Your task to perform on an android device: View the shopping cart on walmart.com. Image 0: 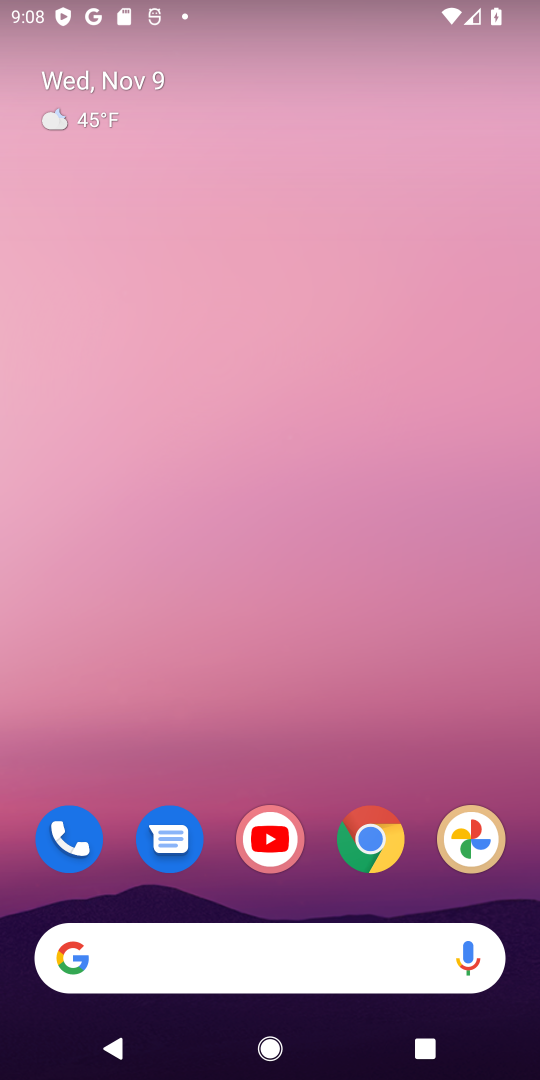
Step 0: drag from (141, 796) to (59, 292)
Your task to perform on an android device: View the shopping cart on walmart.com. Image 1: 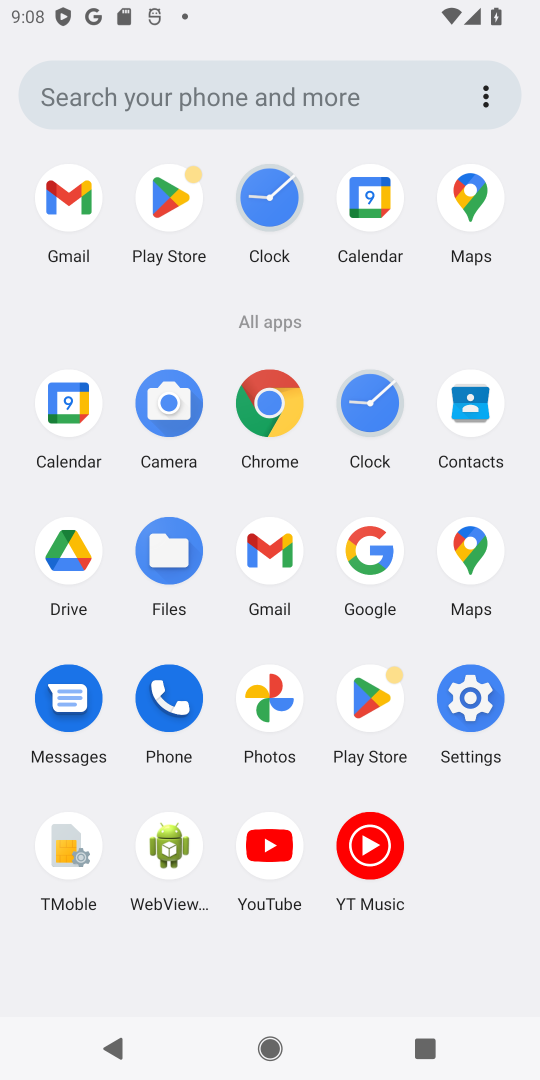
Step 1: click (268, 415)
Your task to perform on an android device: View the shopping cart on walmart.com. Image 2: 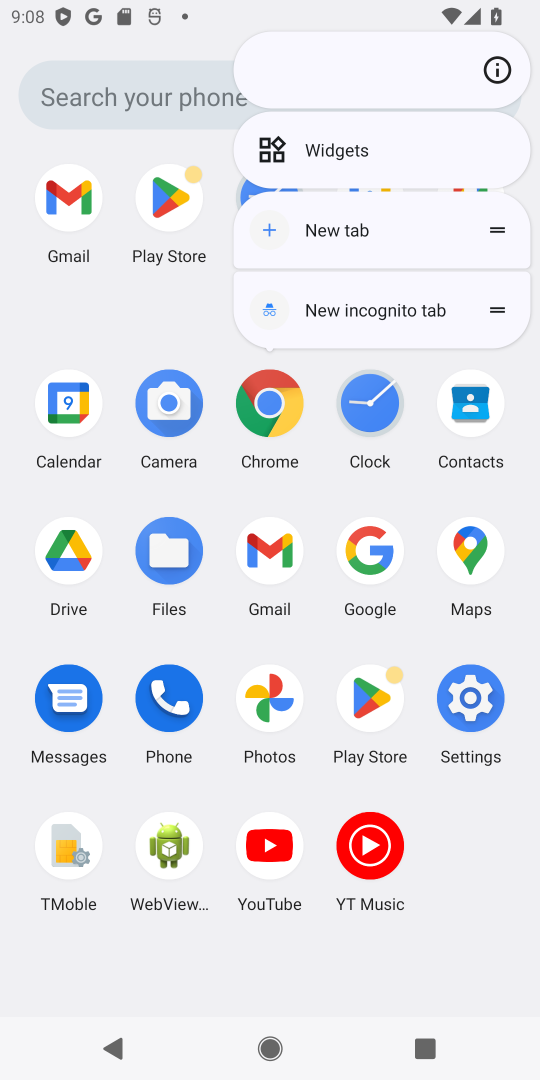
Step 2: click (268, 411)
Your task to perform on an android device: View the shopping cart on walmart.com. Image 3: 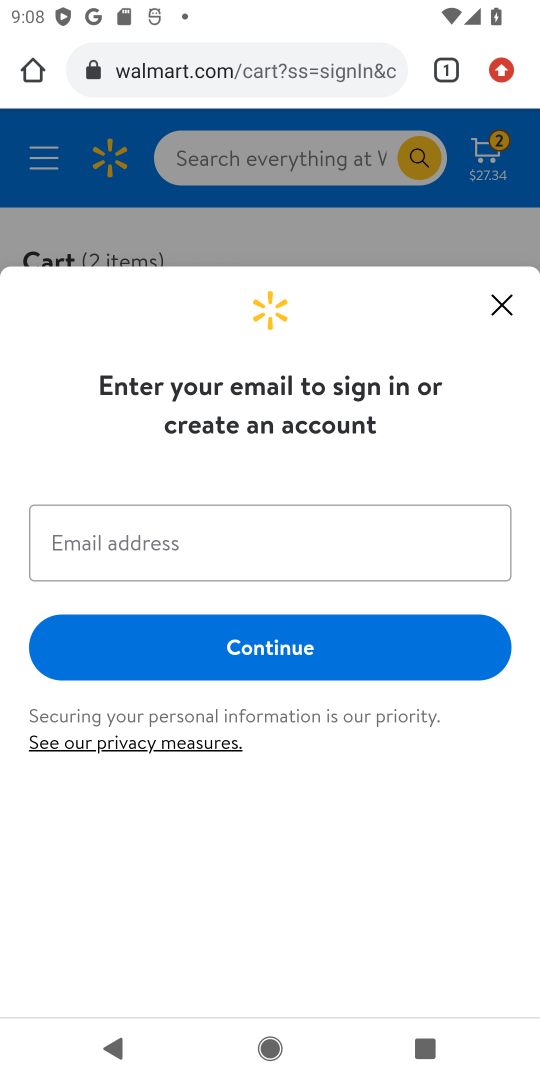
Step 3: click (498, 310)
Your task to perform on an android device: View the shopping cart on walmart.com. Image 4: 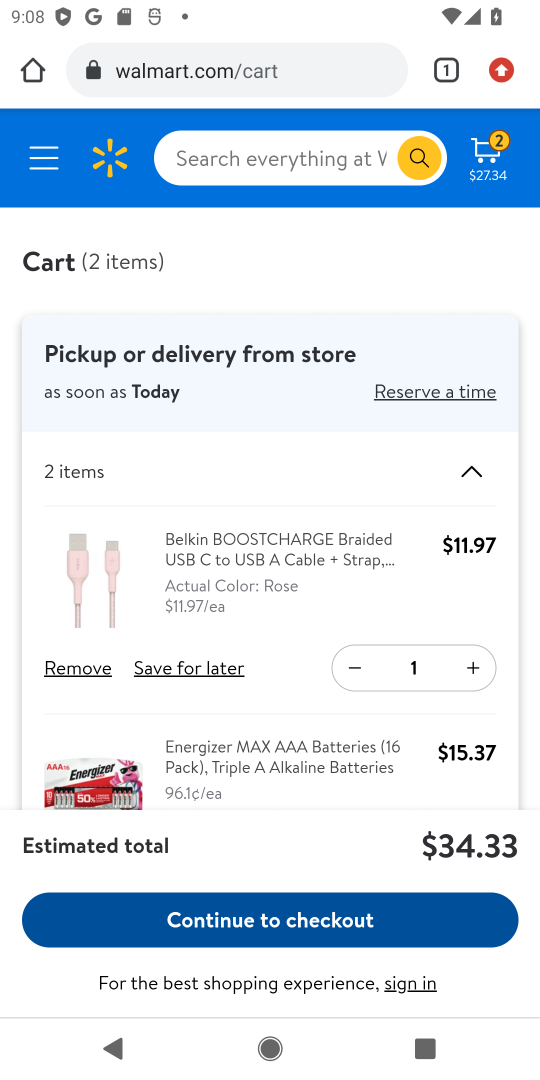
Step 4: click (481, 145)
Your task to perform on an android device: View the shopping cart on walmart.com. Image 5: 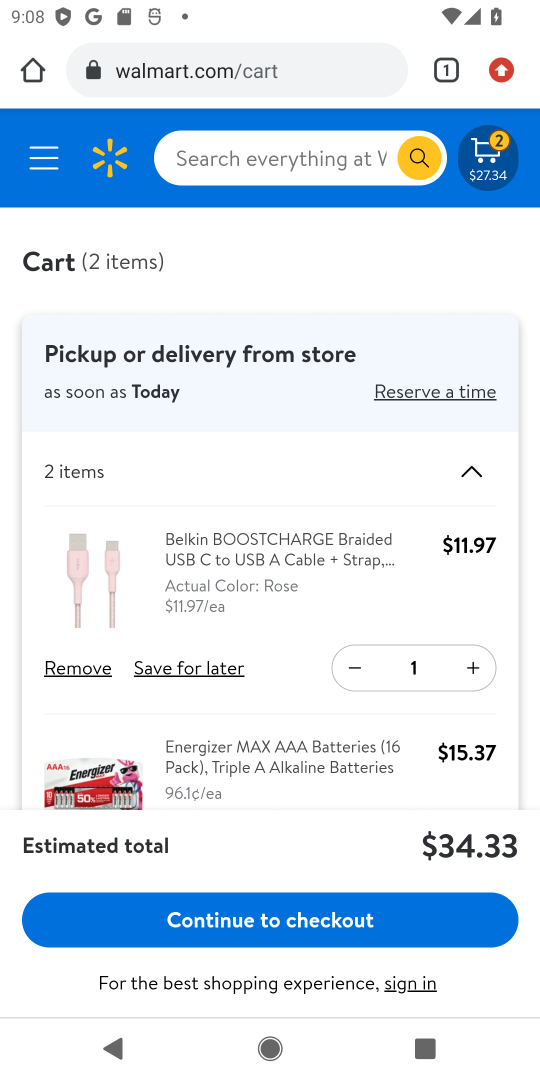
Step 5: task complete